Your task to perform on an android device: Open wifi settings Image 0: 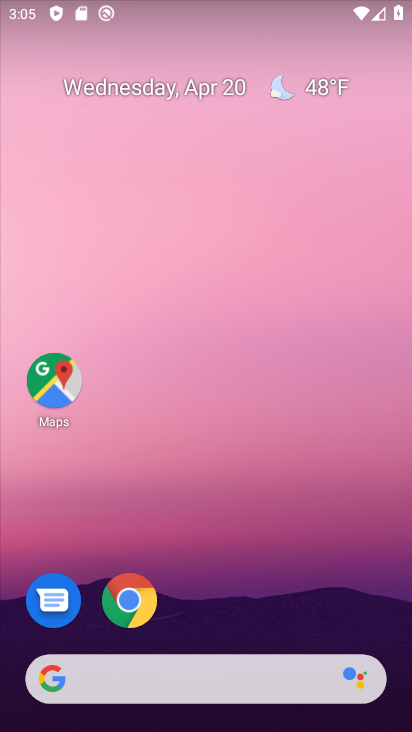
Step 0: drag from (303, 541) to (364, 142)
Your task to perform on an android device: Open wifi settings Image 1: 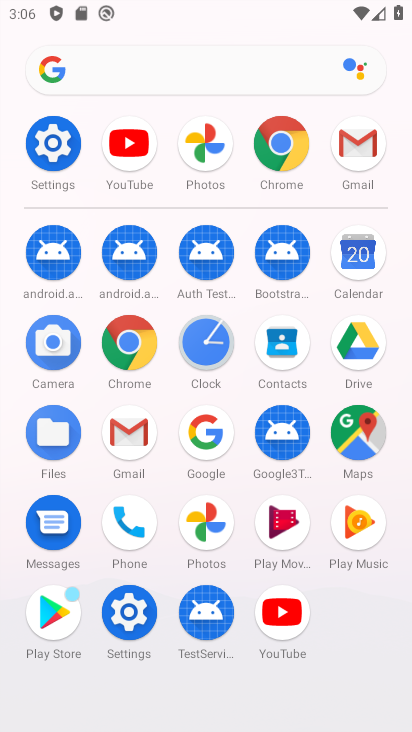
Step 1: click (31, 158)
Your task to perform on an android device: Open wifi settings Image 2: 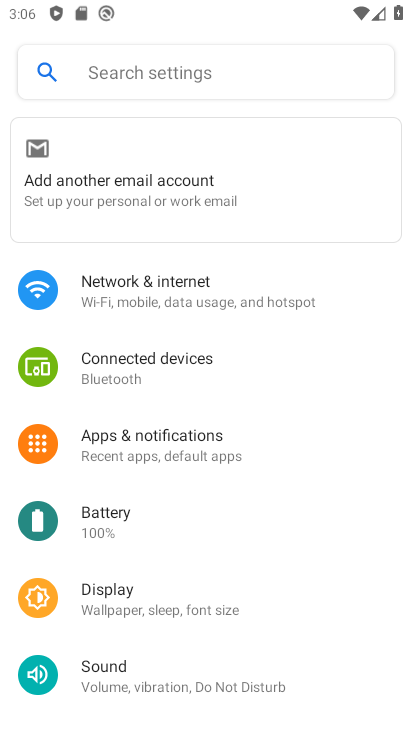
Step 2: click (125, 269)
Your task to perform on an android device: Open wifi settings Image 3: 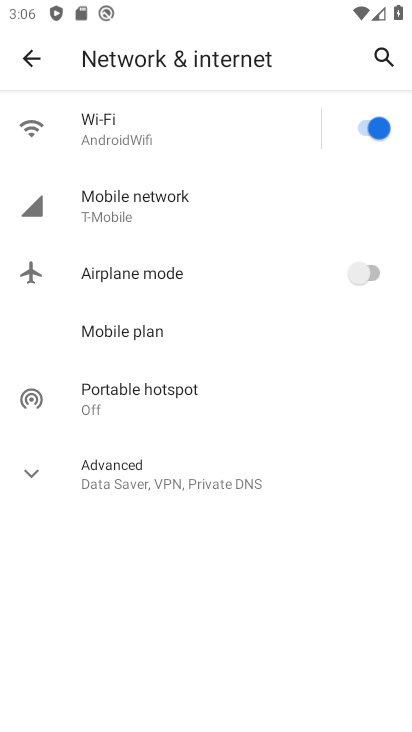
Step 3: click (117, 137)
Your task to perform on an android device: Open wifi settings Image 4: 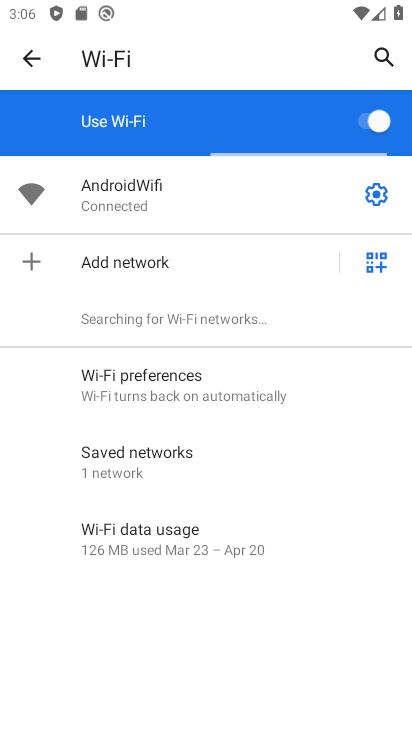
Step 4: task complete